Your task to perform on an android device: install app "Booking.com: Hotels and more" Image 0: 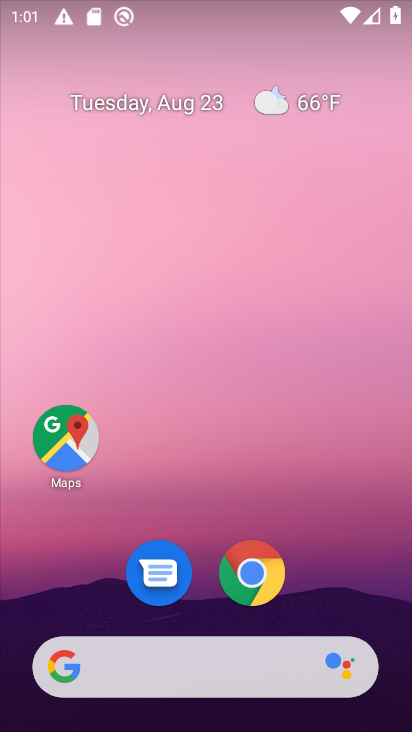
Step 0: drag from (208, 508) to (207, 43)
Your task to perform on an android device: install app "Booking.com: Hotels and more" Image 1: 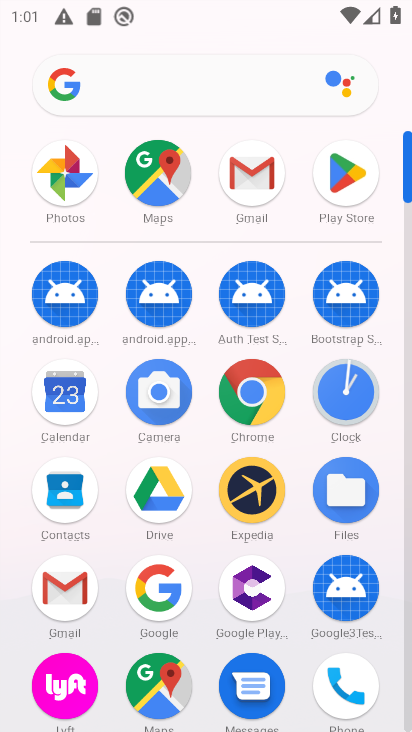
Step 1: click (326, 174)
Your task to perform on an android device: install app "Booking.com: Hotels and more" Image 2: 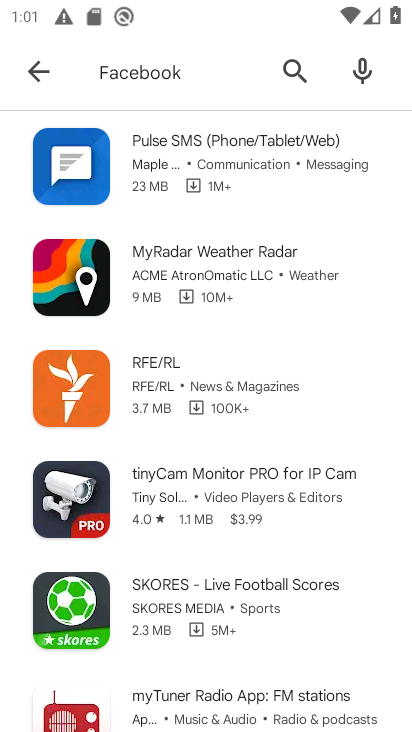
Step 2: click (281, 68)
Your task to perform on an android device: install app "Booking.com: Hotels and more" Image 3: 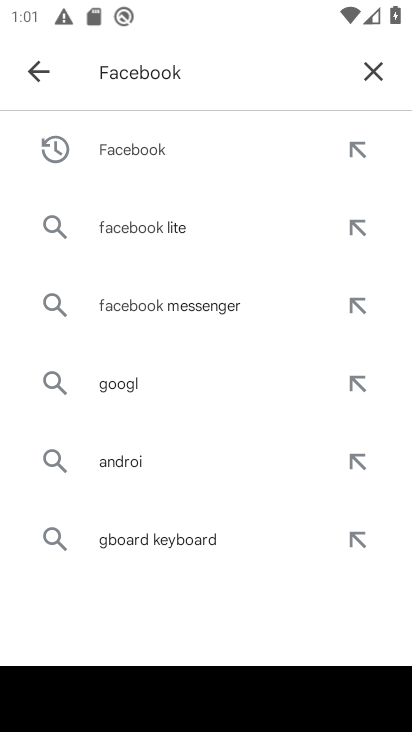
Step 3: click (377, 74)
Your task to perform on an android device: install app "Booking.com: Hotels and more" Image 4: 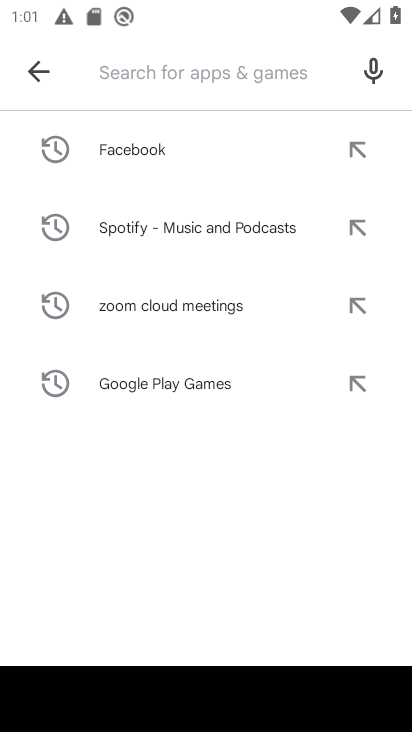
Step 4: type "Booking.com: Hotels and more"
Your task to perform on an android device: install app "Booking.com: Hotels and more" Image 5: 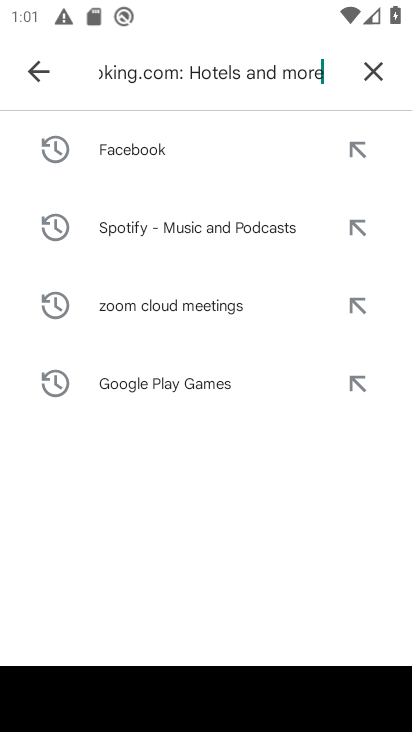
Step 5: type ""
Your task to perform on an android device: install app "Booking.com: Hotels and more" Image 6: 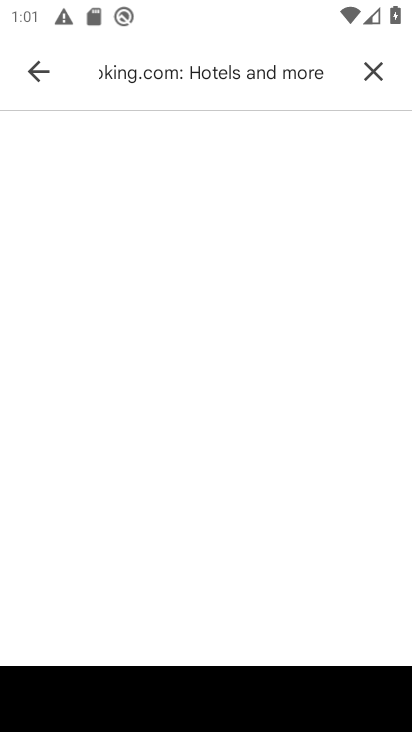
Step 6: task complete